Your task to perform on an android device: see creations saved in the google photos Image 0: 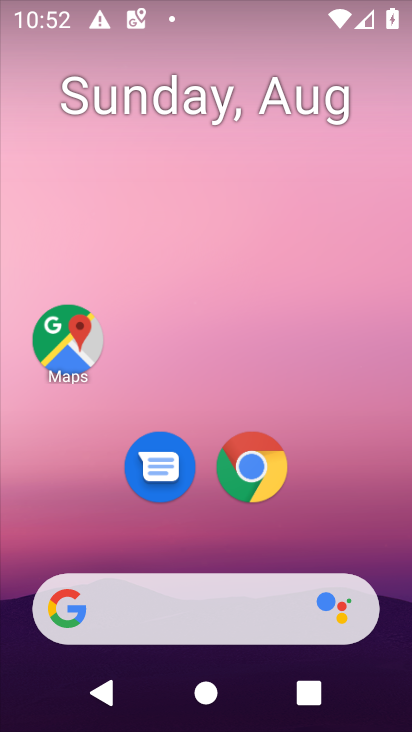
Step 0: drag from (371, 489) to (371, 258)
Your task to perform on an android device: see creations saved in the google photos Image 1: 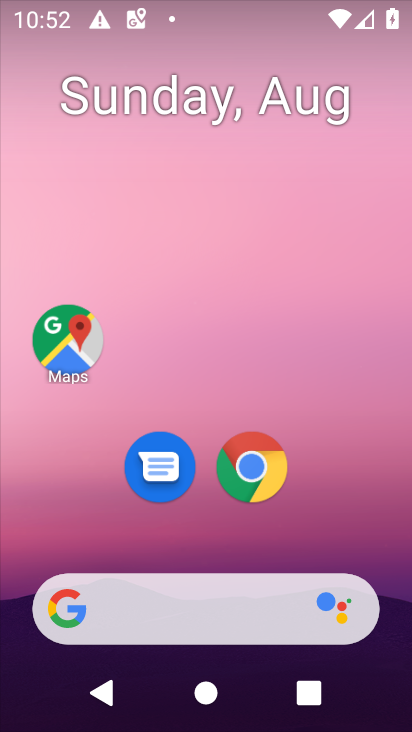
Step 1: drag from (255, 698) to (235, 249)
Your task to perform on an android device: see creations saved in the google photos Image 2: 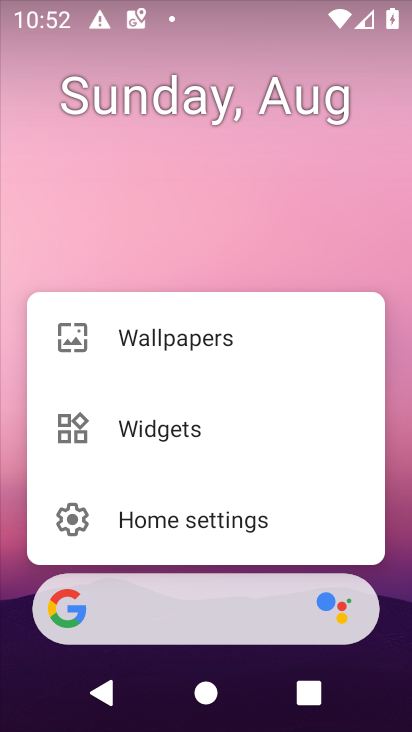
Step 2: press back button
Your task to perform on an android device: see creations saved in the google photos Image 3: 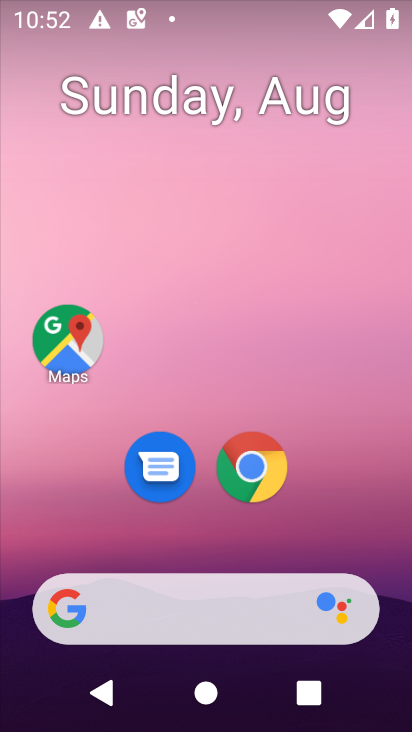
Step 3: drag from (181, 653) to (211, 197)
Your task to perform on an android device: see creations saved in the google photos Image 4: 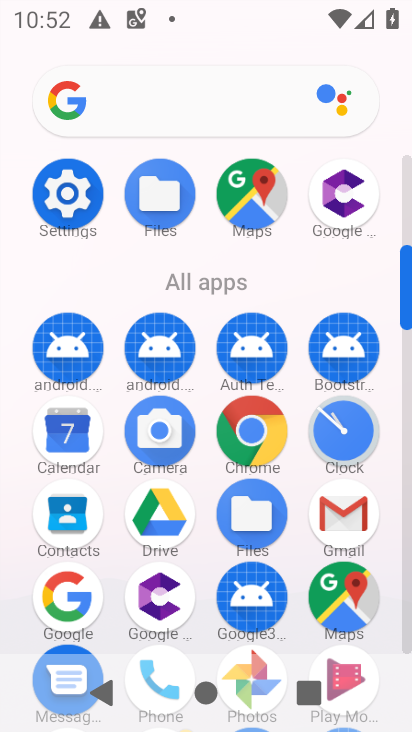
Step 4: drag from (212, 592) to (216, 363)
Your task to perform on an android device: see creations saved in the google photos Image 5: 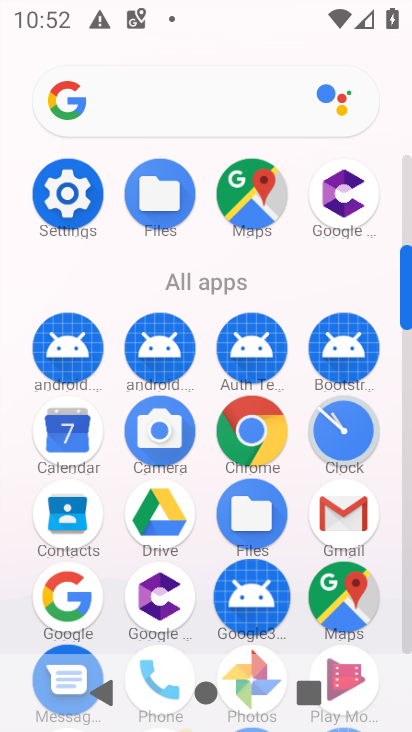
Step 5: drag from (218, 458) to (209, 343)
Your task to perform on an android device: see creations saved in the google photos Image 6: 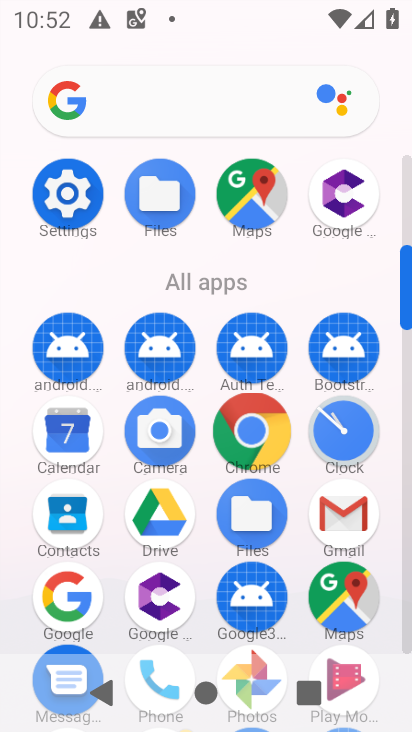
Step 6: drag from (210, 541) to (210, 359)
Your task to perform on an android device: see creations saved in the google photos Image 7: 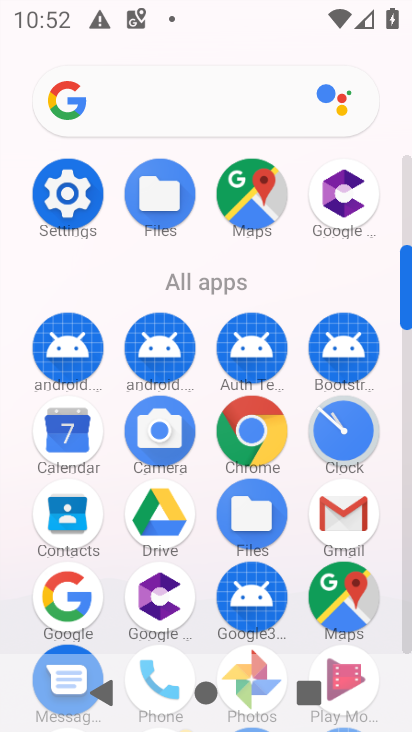
Step 7: drag from (215, 577) to (215, 338)
Your task to perform on an android device: see creations saved in the google photos Image 8: 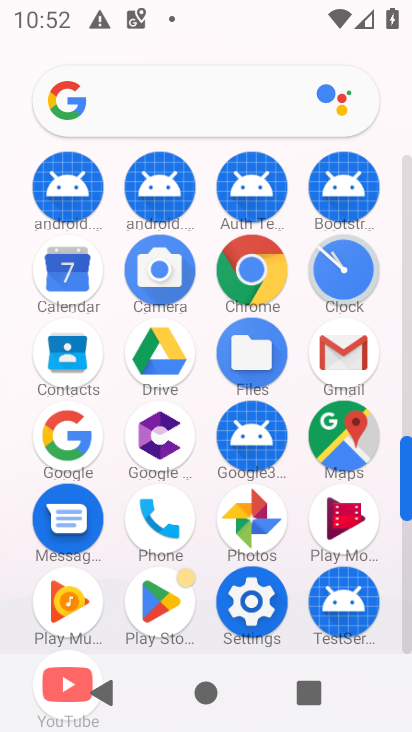
Step 8: drag from (244, 576) to (261, 302)
Your task to perform on an android device: see creations saved in the google photos Image 9: 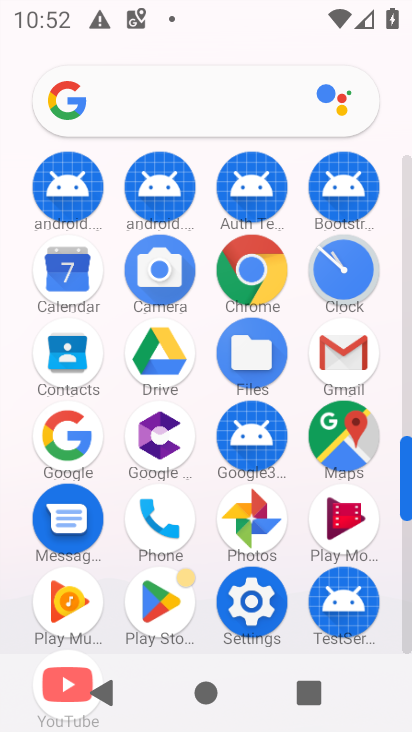
Step 9: click (261, 513)
Your task to perform on an android device: see creations saved in the google photos Image 10: 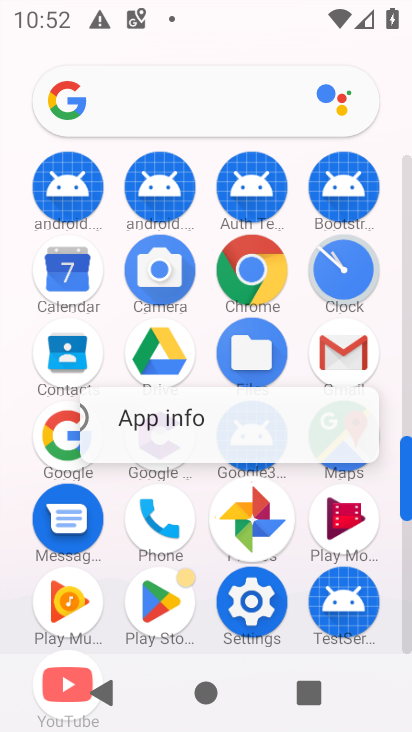
Step 10: click (257, 521)
Your task to perform on an android device: see creations saved in the google photos Image 11: 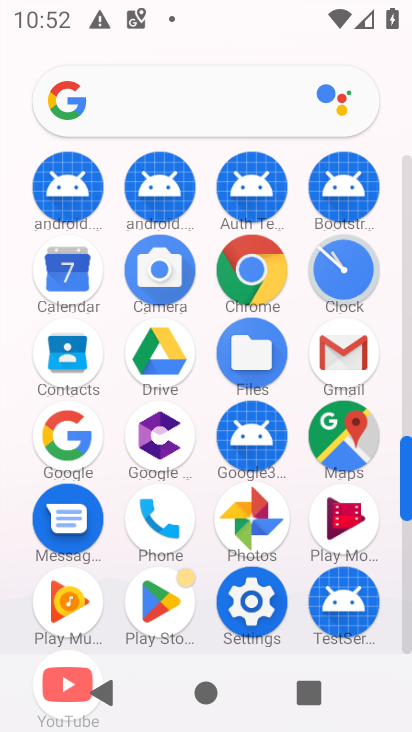
Step 11: click (257, 516)
Your task to perform on an android device: see creations saved in the google photos Image 12: 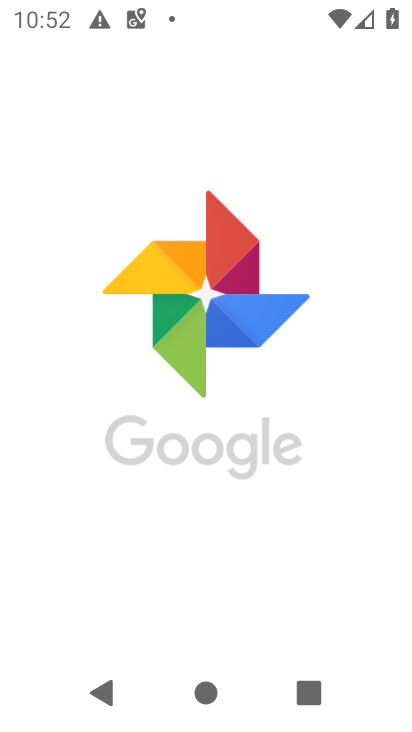
Step 12: click (257, 516)
Your task to perform on an android device: see creations saved in the google photos Image 13: 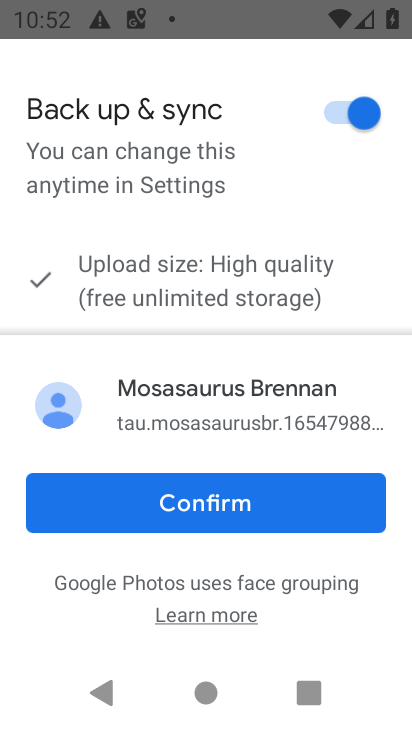
Step 13: click (232, 509)
Your task to perform on an android device: see creations saved in the google photos Image 14: 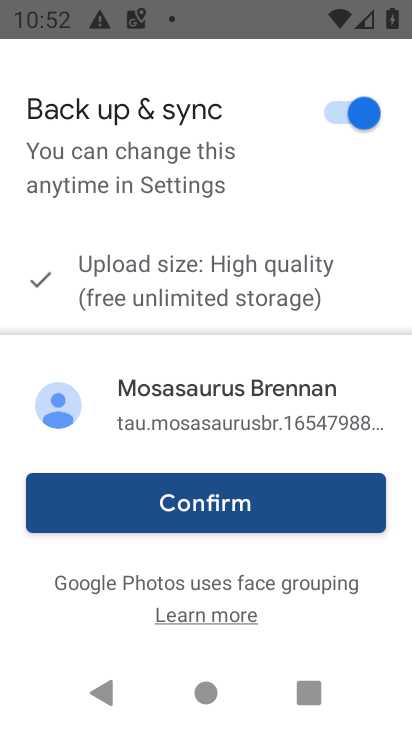
Step 14: click (232, 509)
Your task to perform on an android device: see creations saved in the google photos Image 15: 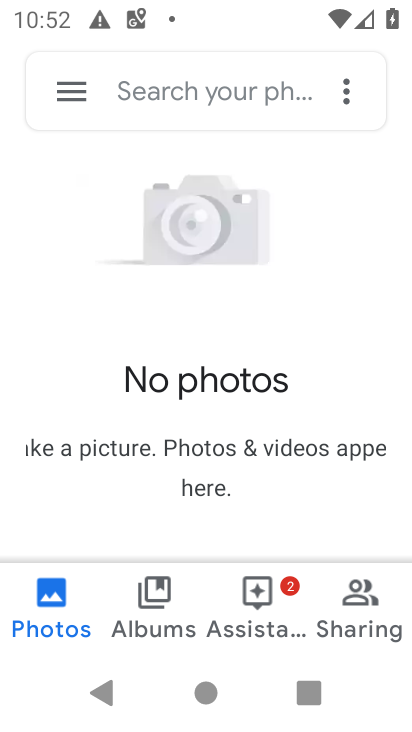
Step 15: task complete